Your task to perform on an android device: set default search engine in the chrome app Image 0: 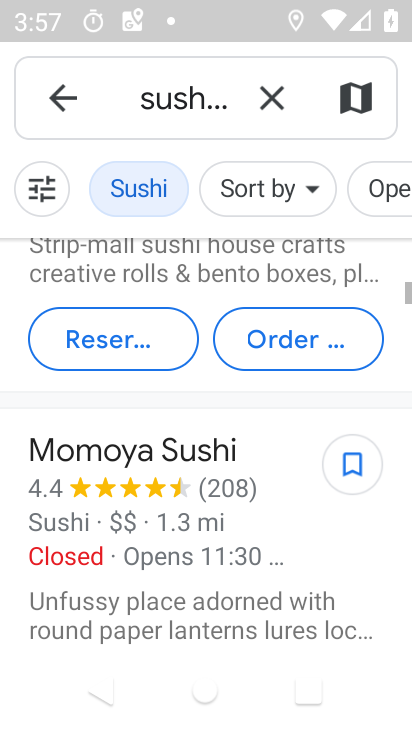
Step 0: press home button
Your task to perform on an android device: set default search engine in the chrome app Image 1: 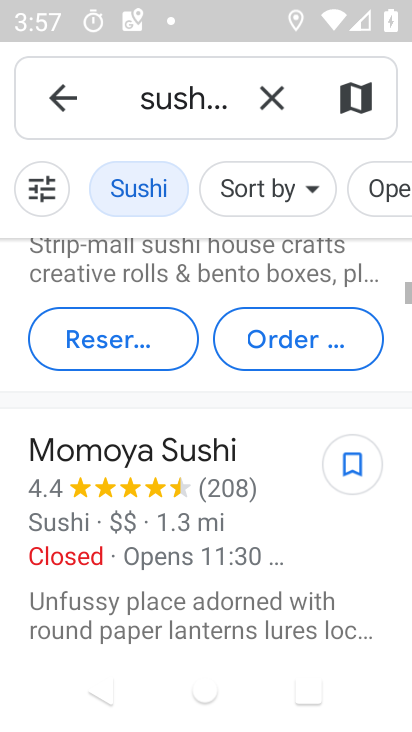
Step 1: press home button
Your task to perform on an android device: set default search engine in the chrome app Image 2: 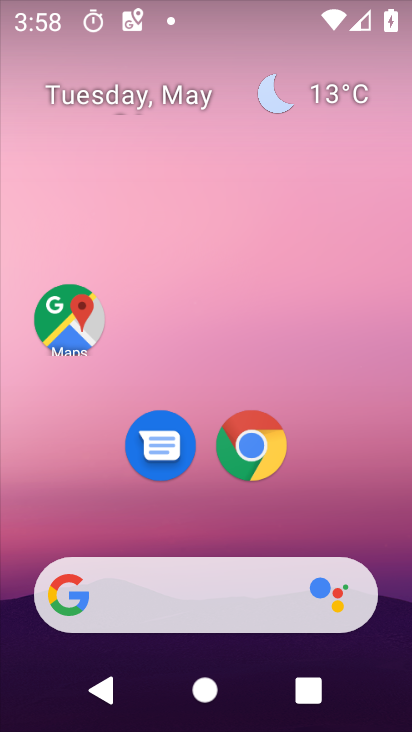
Step 2: click (248, 436)
Your task to perform on an android device: set default search engine in the chrome app Image 3: 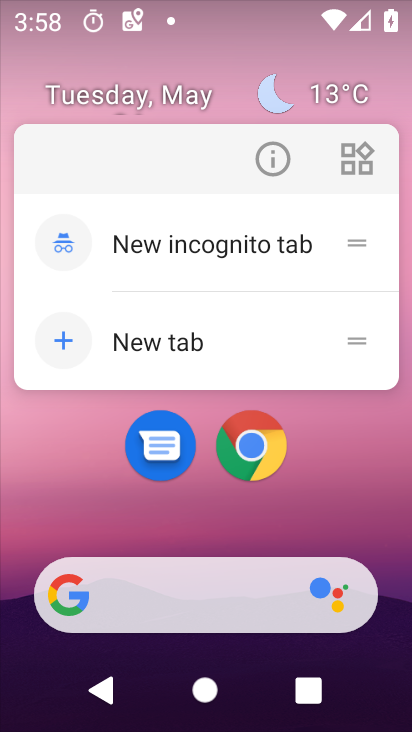
Step 3: click (249, 437)
Your task to perform on an android device: set default search engine in the chrome app Image 4: 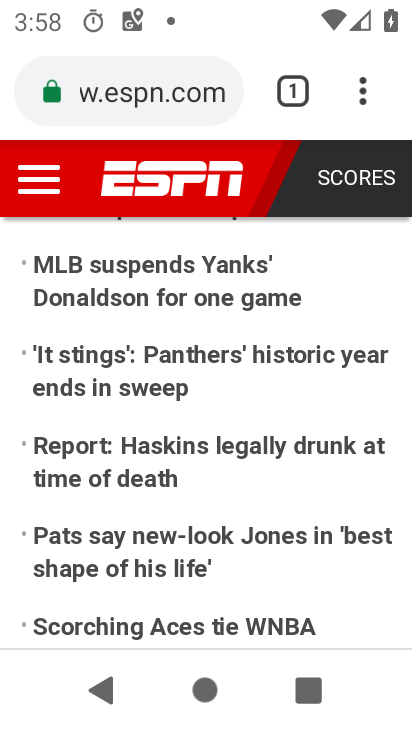
Step 4: click (361, 103)
Your task to perform on an android device: set default search engine in the chrome app Image 5: 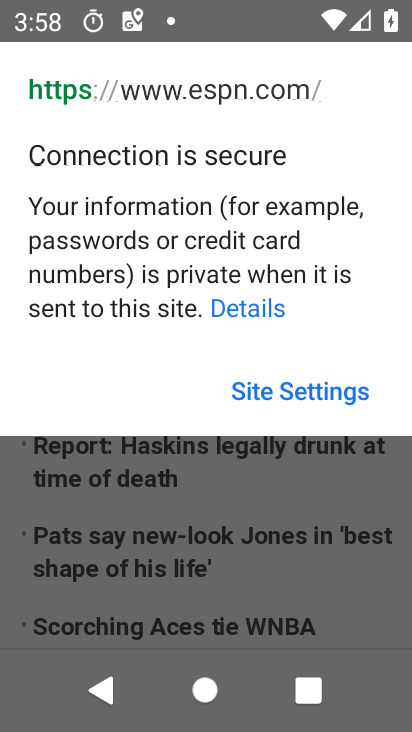
Step 5: click (239, 489)
Your task to perform on an android device: set default search engine in the chrome app Image 6: 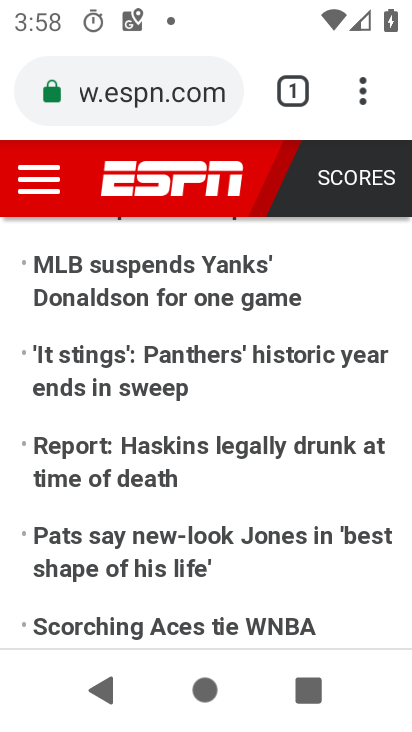
Step 6: click (358, 83)
Your task to perform on an android device: set default search engine in the chrome app Image 7: 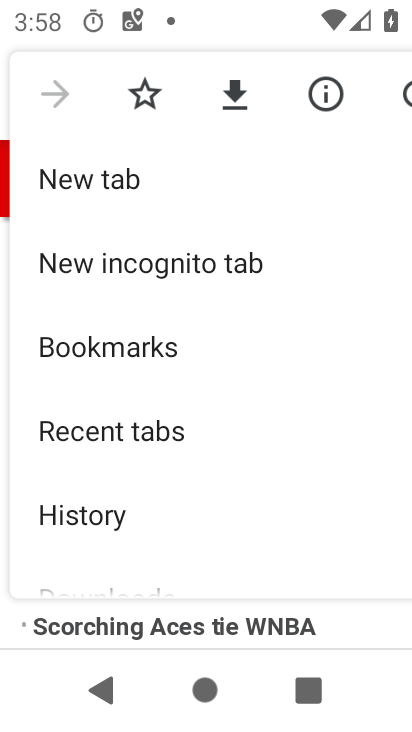
Step 7: drag from (161, 503) to (187, 101)
Your task to perform on an android device: set default search engine in the chrome app Image 8: 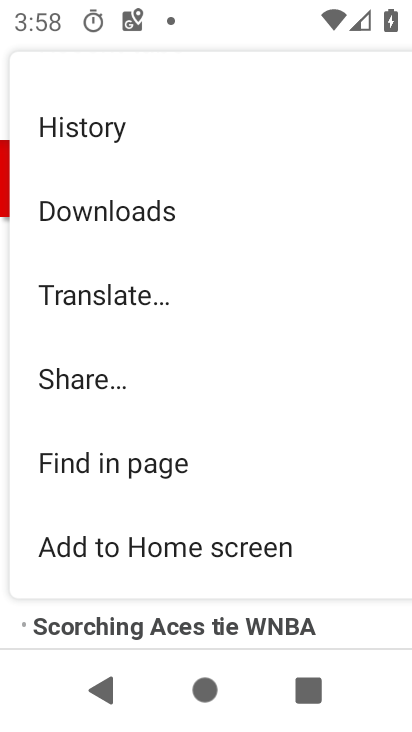
Step 8: drag from (154, 533) to (184, 202)
Your task to perform on an android device: set default search engine in the chrome app Image 9: 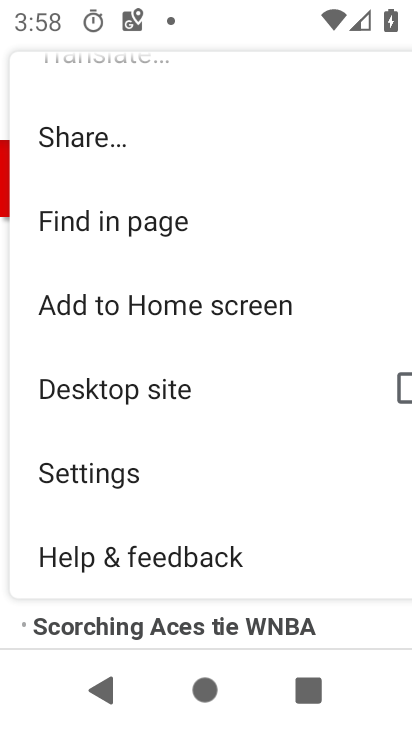
Step 9: click (145, 474)
Your task to perform on an android device: set default search engine in the chrome app Image 10: 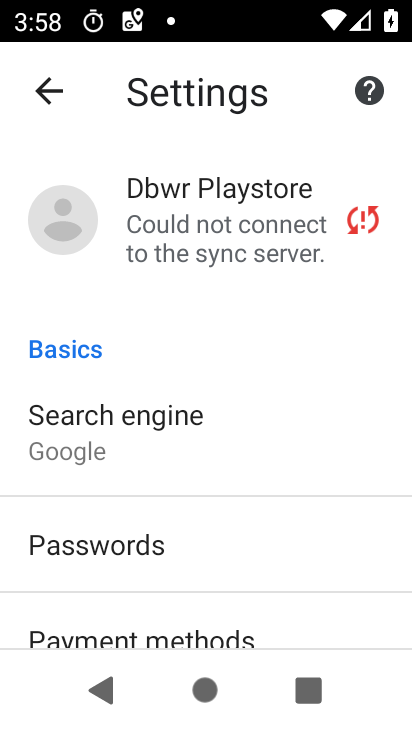
Step 10: click (137, 443)
Your task to perform on an android device: set default search engine in the chrome app Image 11: 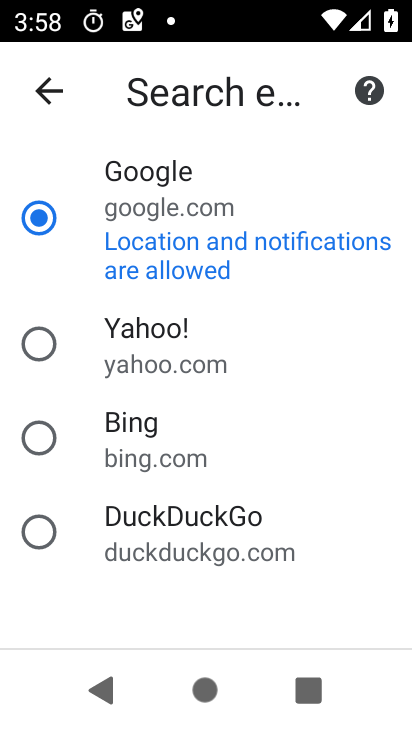
Step 11: click (39, 436)
Your task to perform on an android device: set default search engine in the chrome app Image 12: 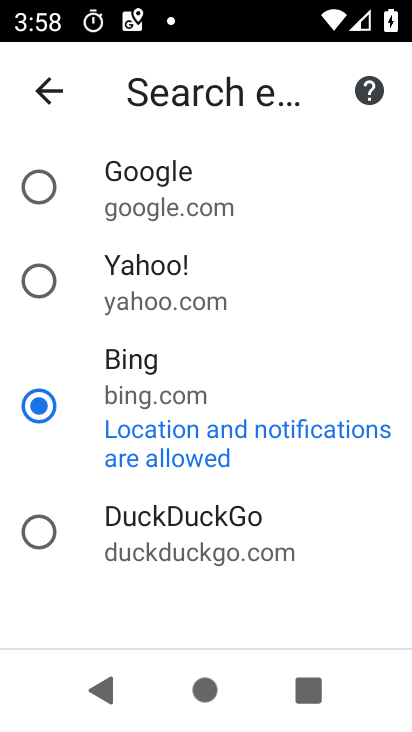
Step 12: task complete